Your task to perform on an android device: Go to Wikipedia Image 0: 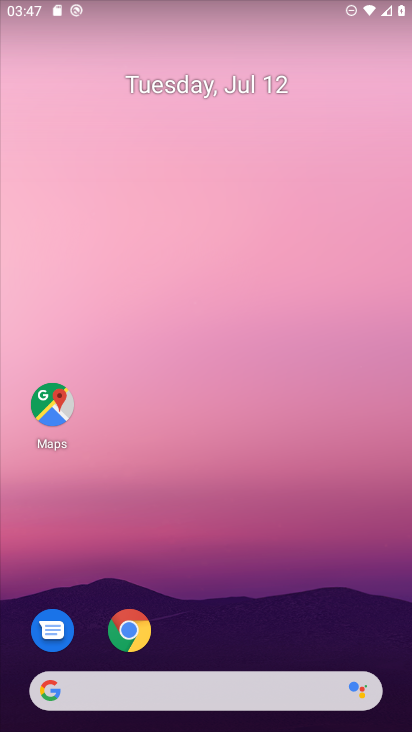
Step 0: click (126, 628)
Your task to perform on an android device: Go to Wikipedia Image 1: 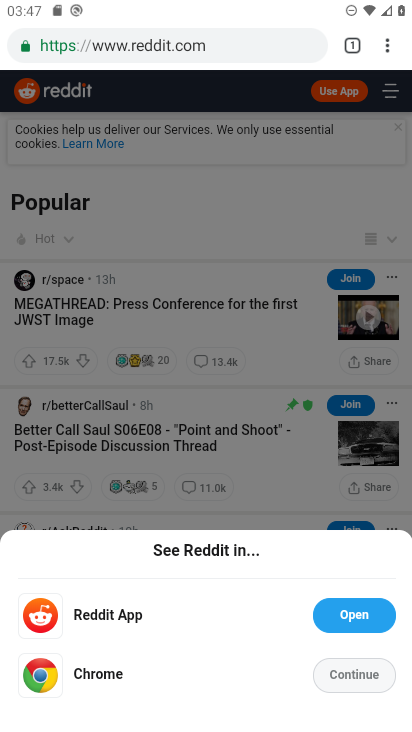
Step 1: click (244, 39)
Your task to perform on an android device: Go to Wikipedia Image 2: 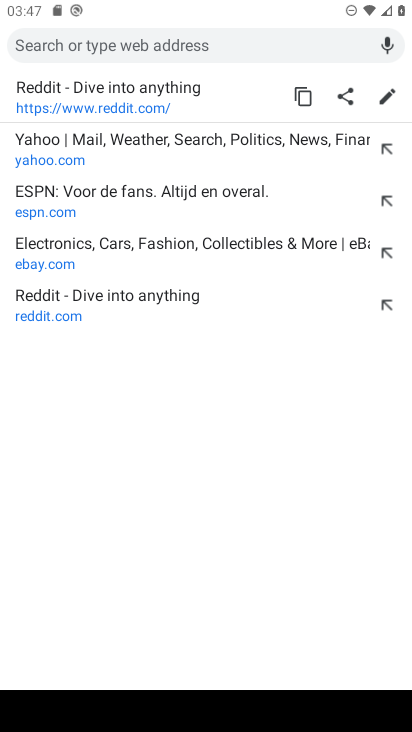
Step 2: type "wikipedia"
Your task to perform on an android device: Go to Wikipedia Image 3: 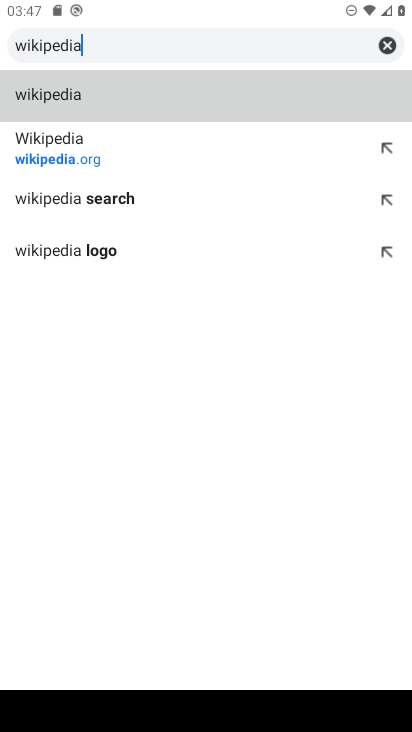
Step 3: click (68, 104)
Your task to perform on an android device: Go to Wikipedia Image 4: 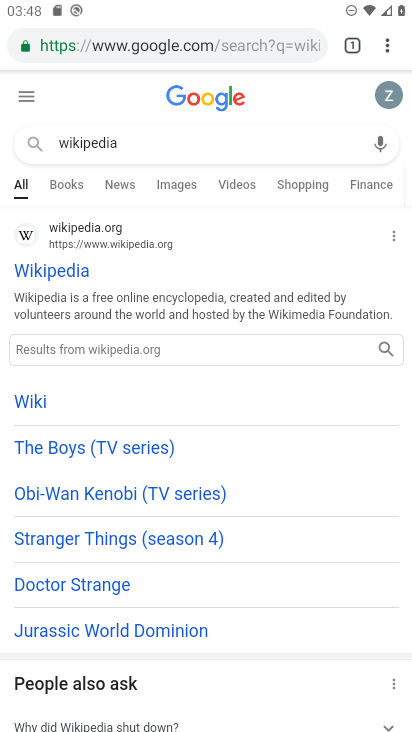
Step 4: click (30, 250)
Your task to perform on an android device: Go to Wikipedia Image 5: 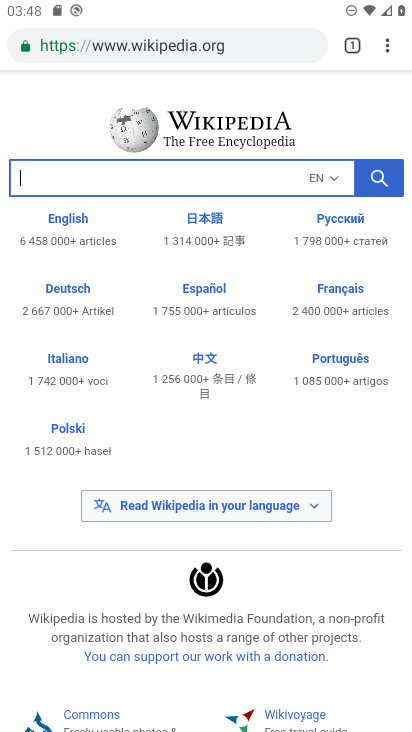
Step 5: task complete